Your task to perform on an android device: turn on the 12-hour format for clock Image 0: 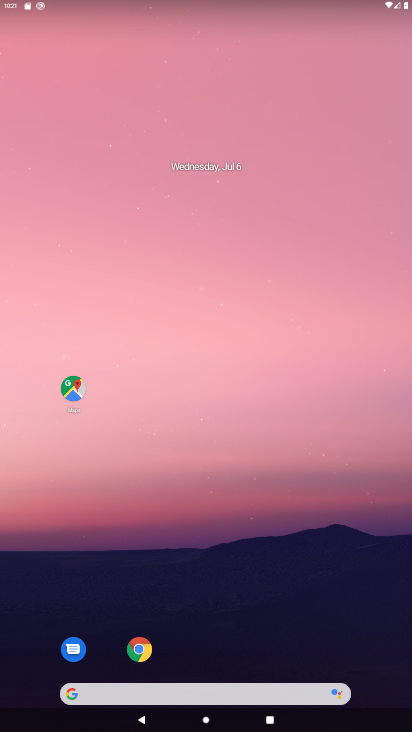
Step 0: drag from (325, 612) to (363, 116)
Your task to perform on an android device: turn on the 12-hour format for clock Image 1: 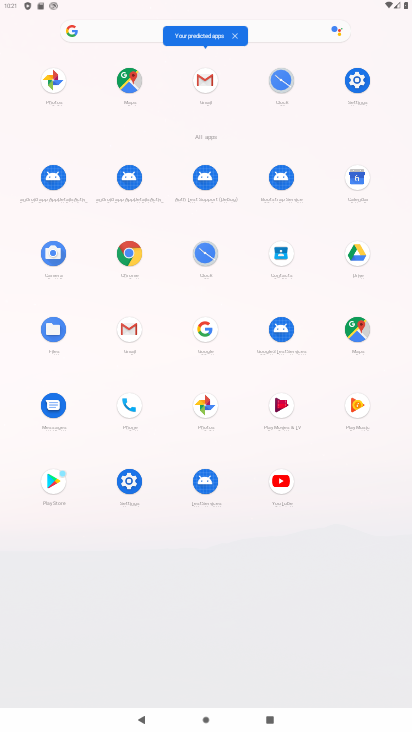
Step 1: click (199, 254)
Your task to perform on an android device: turn on the 12-hour format for clock Image 2: 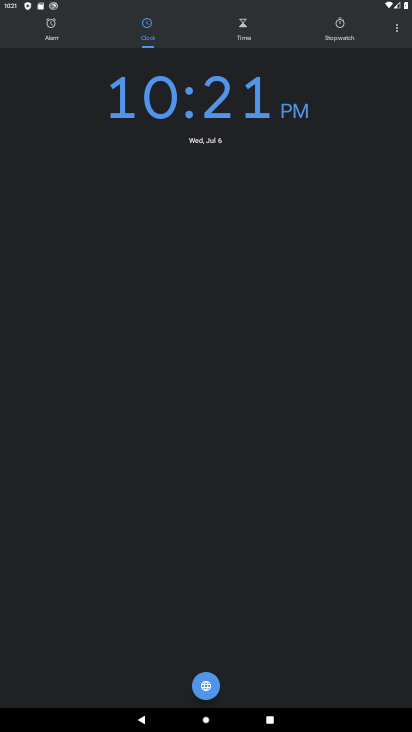
Step 2: click (394, 38)
Your task to perform on an android device: turn on the 12-hour format for clock Image 3: 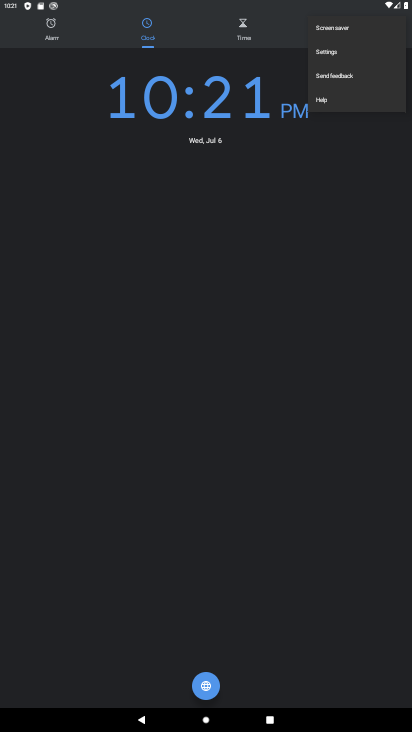
Step 3: click (352, 57)
Your task to perform on an android device: turn on the 12-hour format for clock Image 4: 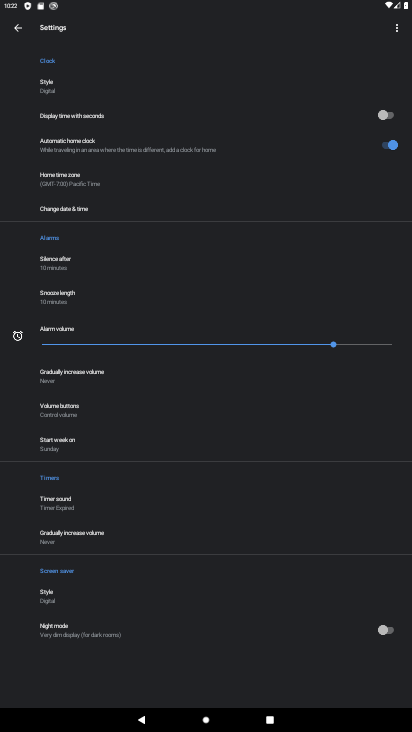
Step 4: click (68, 216)
Your task to perform on an android device: turn on the 12-hour format for clock Image 5: 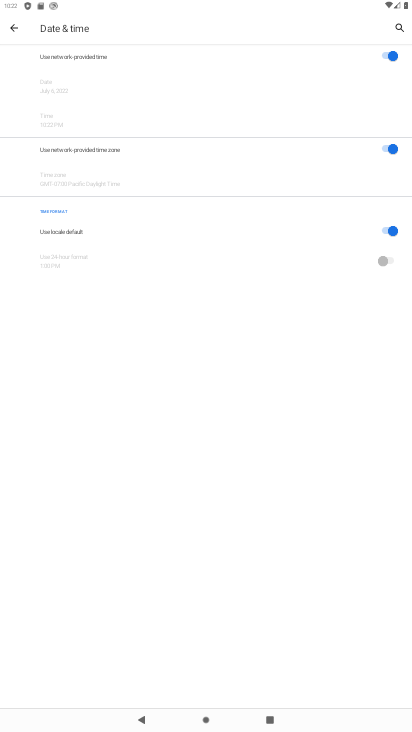
Step 5: task complete